Your task to perform on an android device: turn off javascript in the chrome app Image 0: 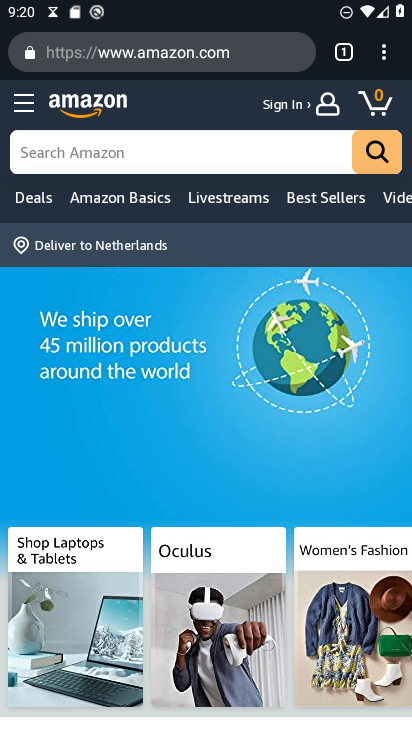
Step 0: press home button
Your task to perform on an android device: turn off javascript in the chrome app Image 1: 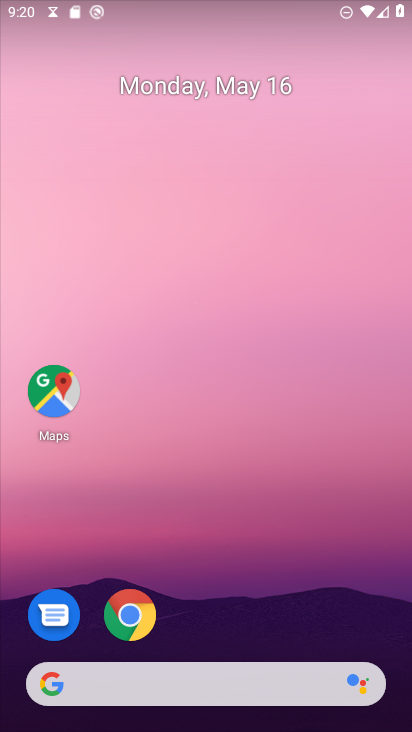
Step 1: click (124, 620)
Your task to perform on an android device: turn off javascript in the chrome app Image 2: 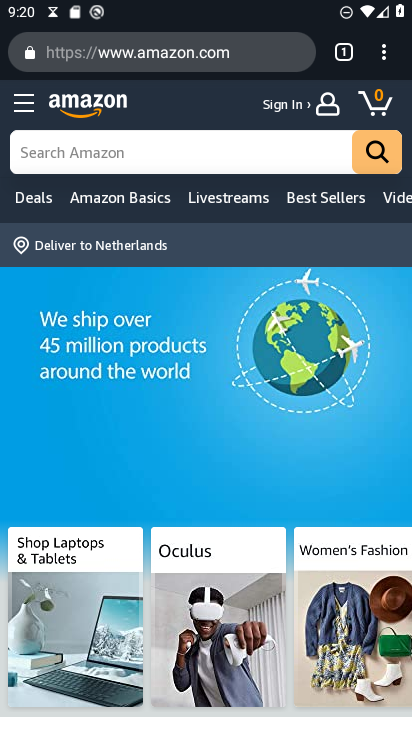
Step 2: click (385, 61)
Your task to perform on an android device: turn off javascript in the chrome app Image 3: 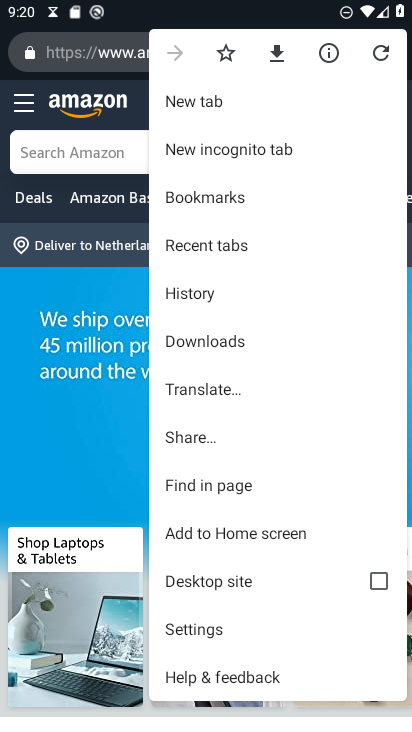
Step 3: click (213, 635)
Your task to perform on an android device: turn off javascript in the chrome app Image 4: 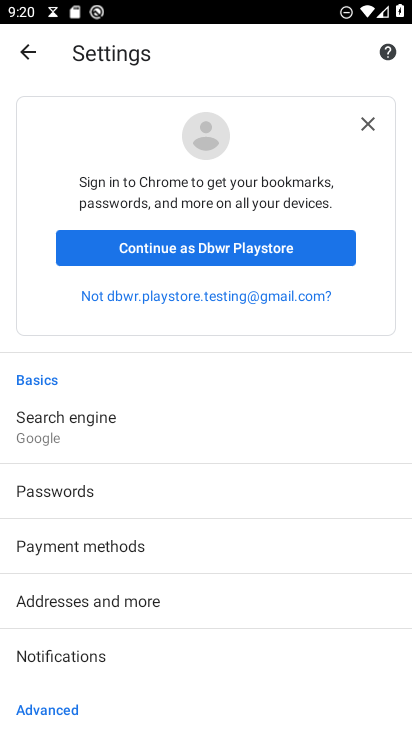
Step 4: drag from (12, 583) to (144, 203)
Your task to perform on an android device: turn off javascript in the chrome app Image 5: 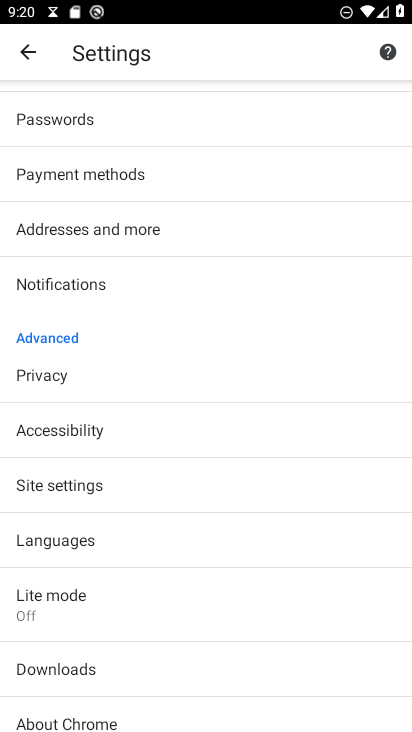
Step 5: click (50, 496)
Your task to perform on an android device: turn off javascript in the chrome app Image 6: 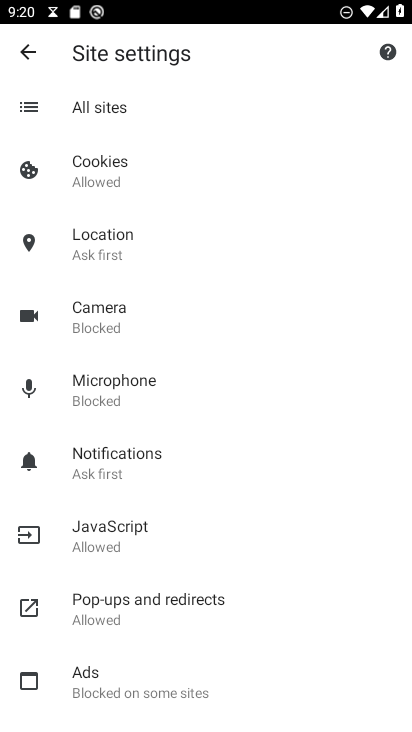
Step 6: click (95, 528)
Your task to perform on an android device: turn off javascript in the chrome app Image 7: 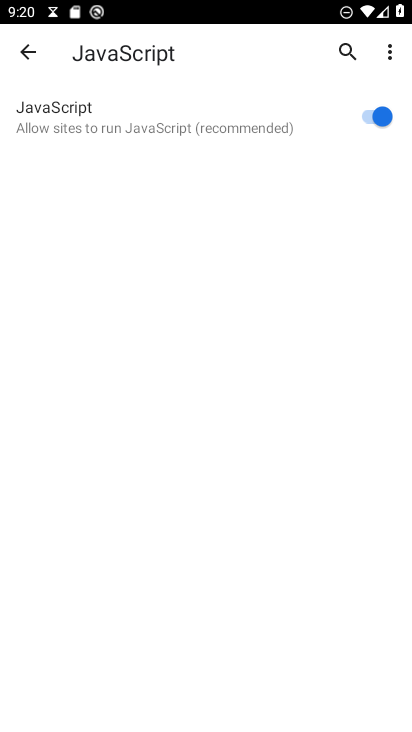
Step 7: click (374, 113)
Your task to perform on an android device: turn off javascript in the chrome app Image 8: 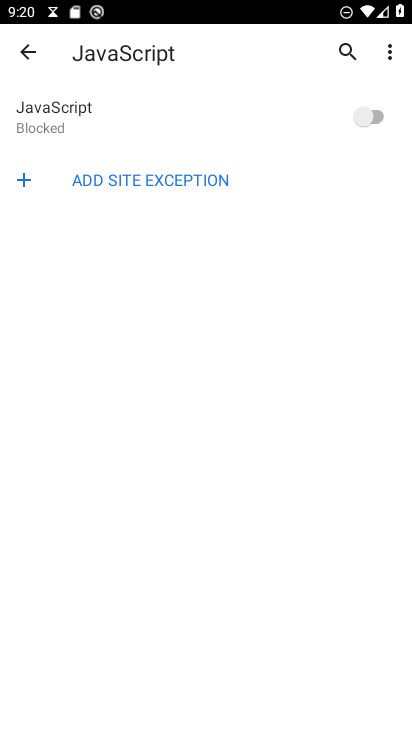
Step 8: task complete